Your task to perform on an android device: Open ESPN.com Image 0: 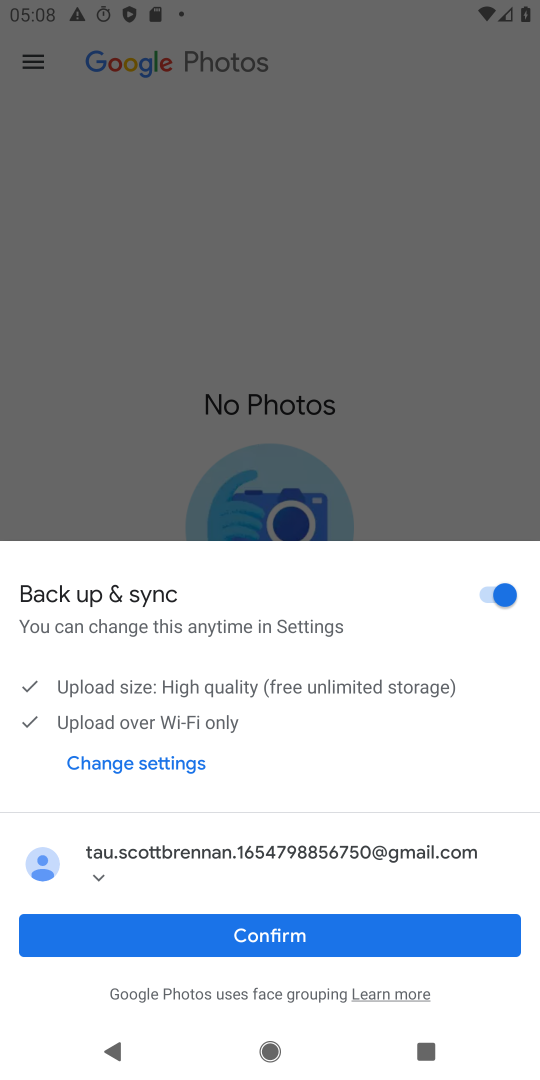
Step 0: press home button
Your task to perform on an android device: Open ESPN.com Image 1: 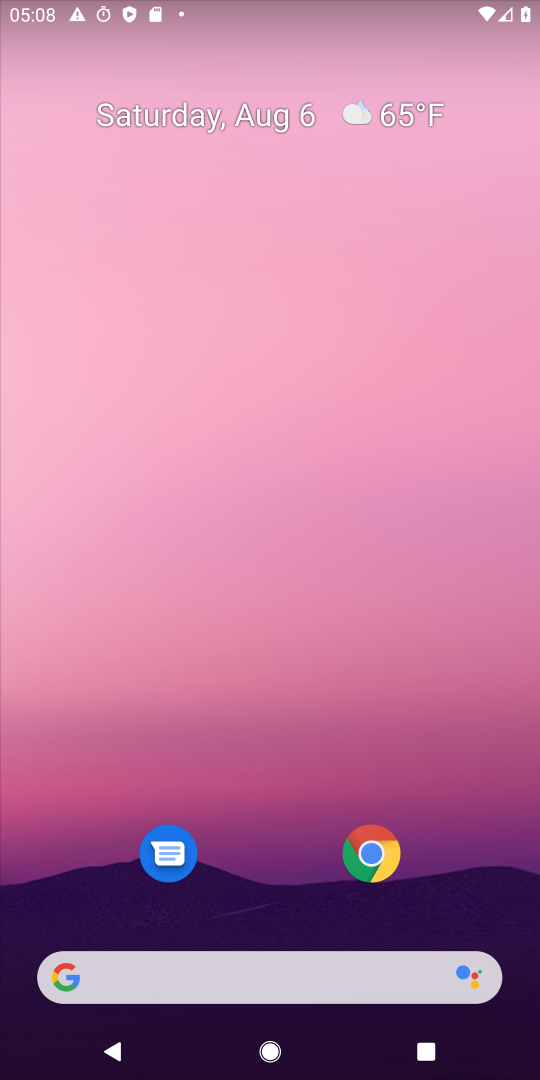
Step 1: drag from (269, 859) to (356, 18)
Your task to perform on an android device: Open ESPN.com Image 2: 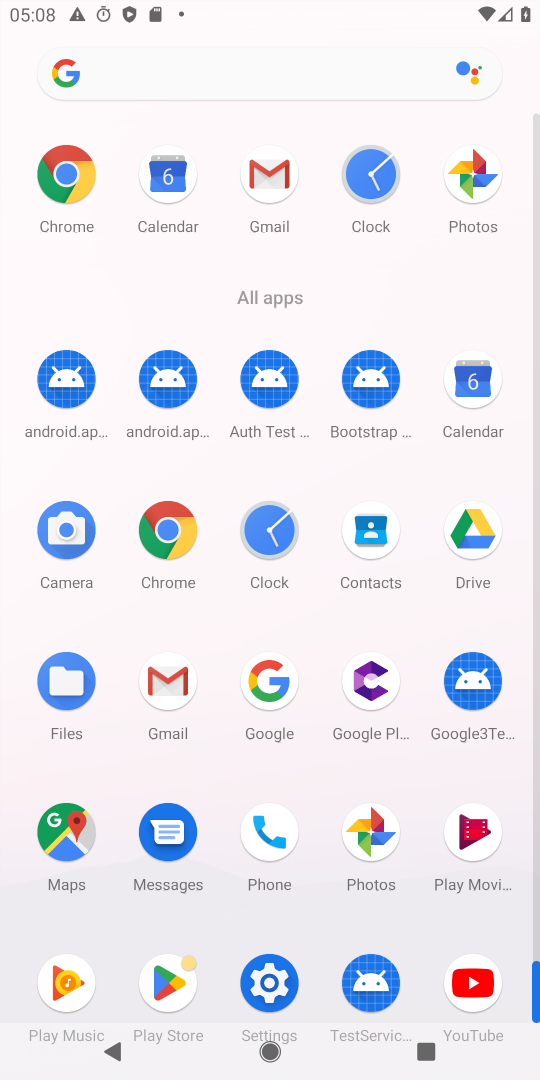
Step 2: click (182, 523)
Your task to perform on an android device: Open ESPN.com Image 3: 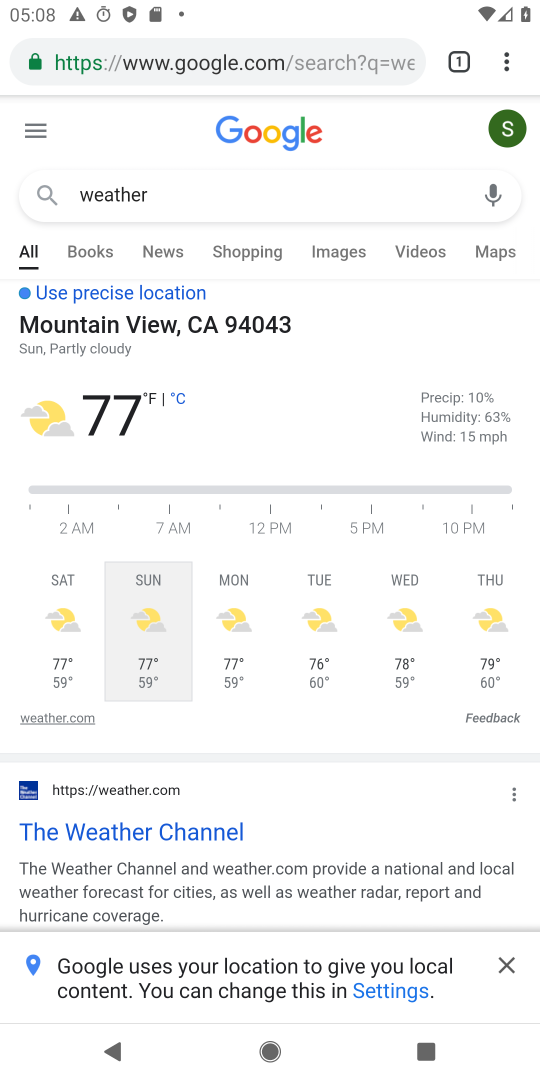
Step 3: click (265, 57)
Your task to perform on an android device: Open ESPN.com Image 4: 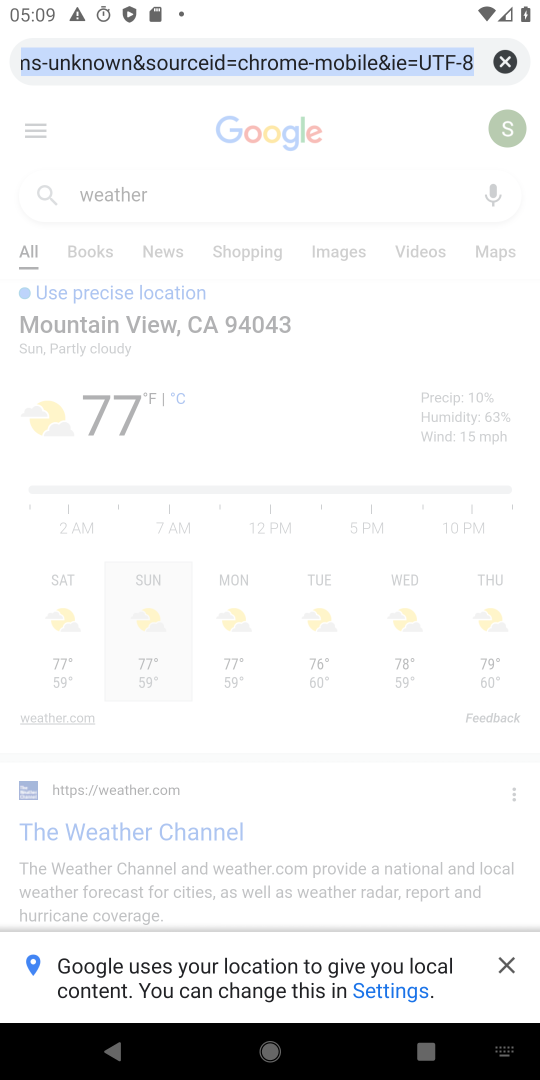
Step 4: type "espn.com"
Your task to perform on an android device: Open ESPN.com Image 5: 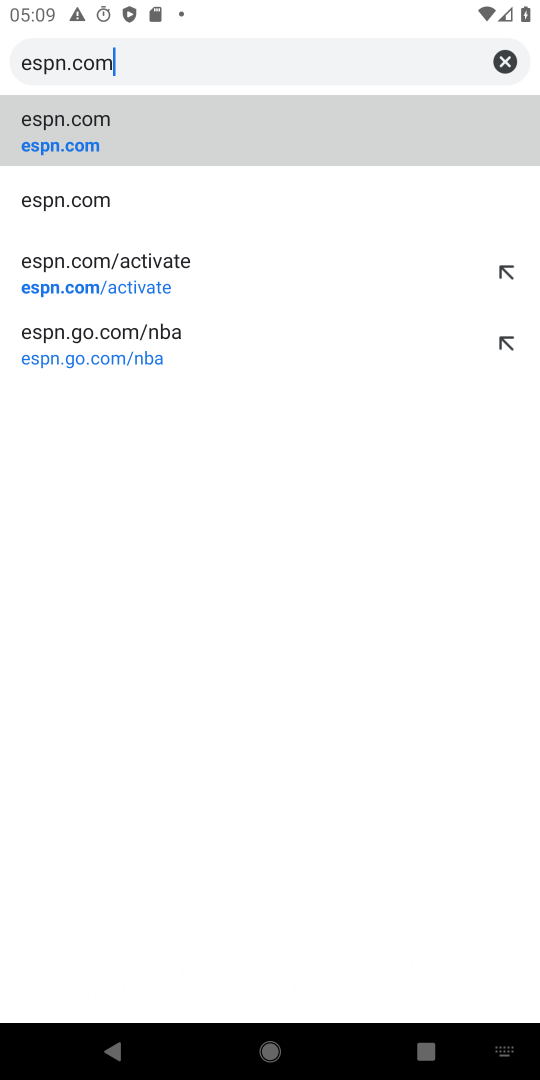
Step 5: click (165, 150)
Your task to perform on an android device: Open ESPN.com Image 6: 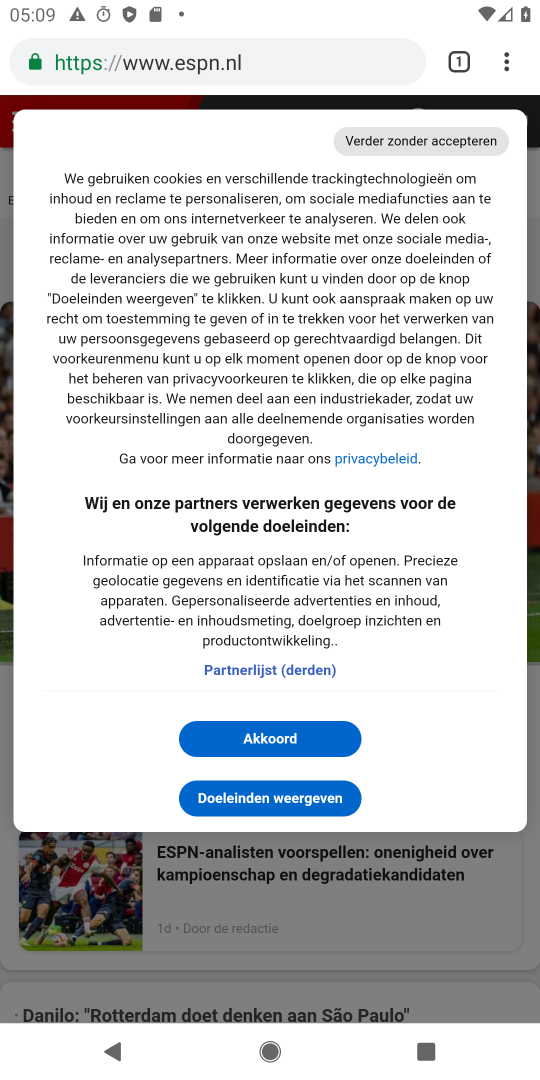
Step 6: task complete